Your task to perform on an android device: Open calendar and show me the second week of next month Image 0: 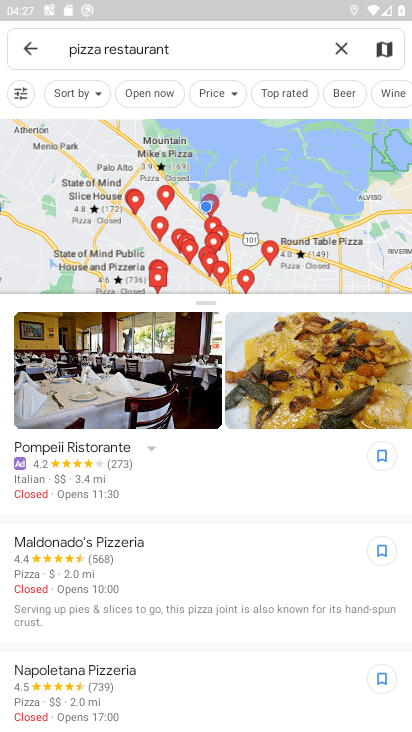
Step 0: press home button
Your task to perform on an android device: Open calendar and show me the second week of next month Image 1: 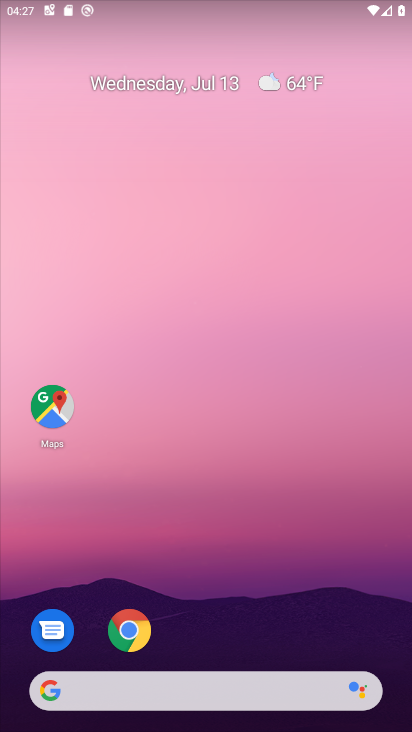
Step 1: click (187, 87)
Your task to perform on an android device: Open calendar and show me the second week of next month Image 2: 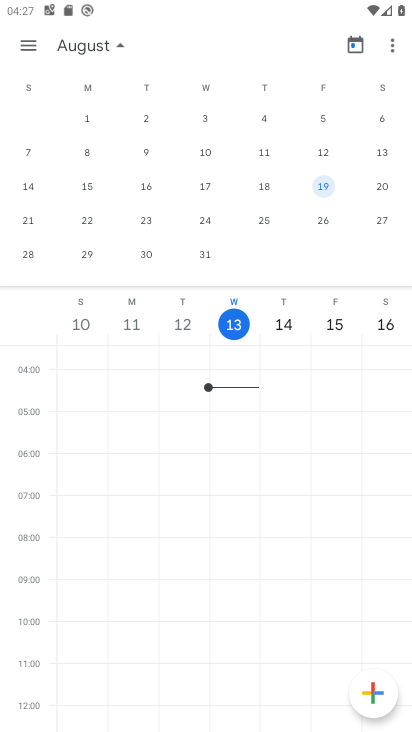
Step 2: drag from (400, 263) to (9, 256)
Your task to perform on an android device: Open calendar and show me the second week of next month Image 3: 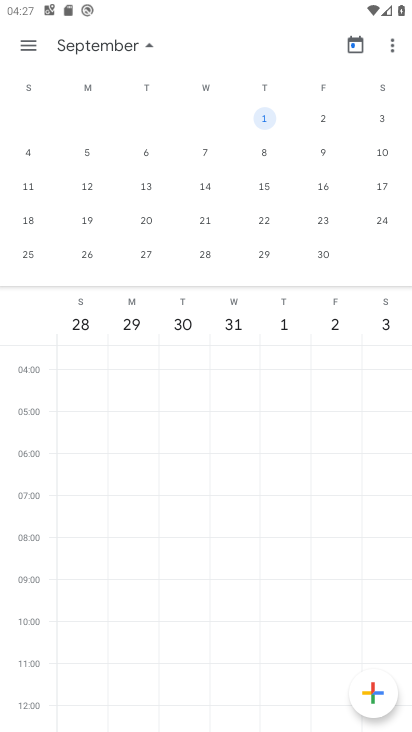
Step 3: drag from (25, 228) to (378, 246)
Your task to perform on an android device: Open calendar and show me the second week of next month Image 4: 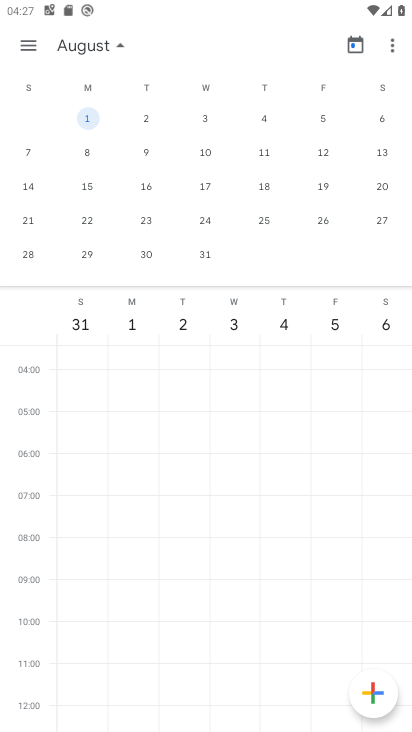
Step 4: click (206, 156)
Your task to perform on an android device: Open calendar and show me the second week of next month Image 5: 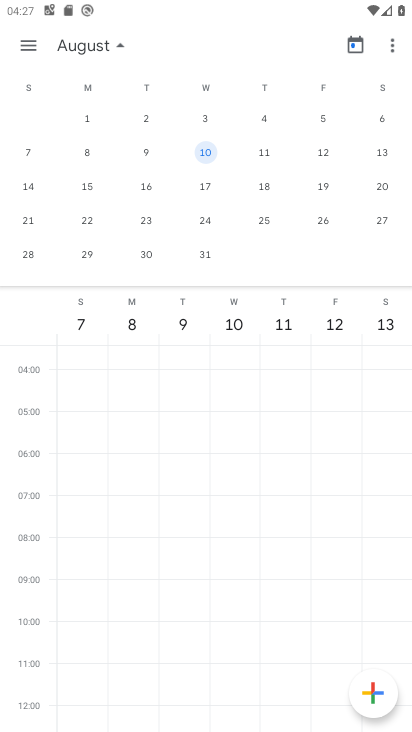
Step 5: task complete